Your task to perform on an android device: Play the latest video from the BBC Image 0: 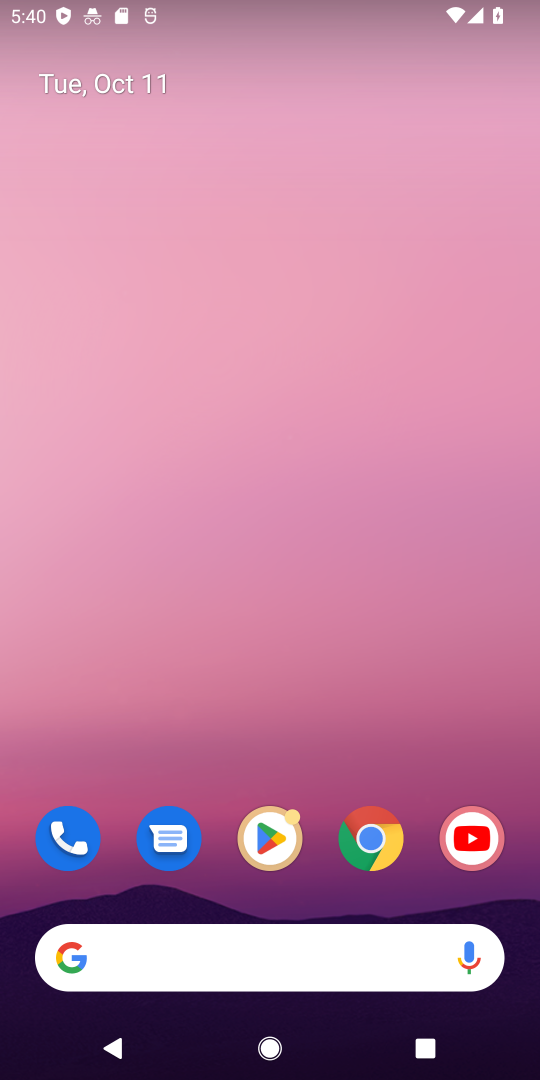
Step 0: click (379, 842)
Your task to perform on an android device: Play the latest video from the BBC Image 1: 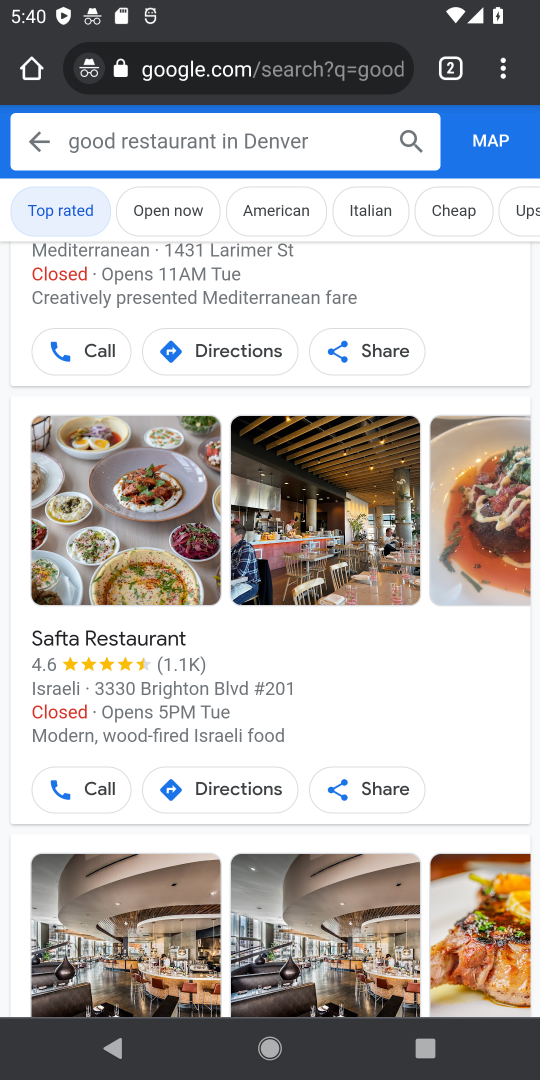
Step 1: click (200, 75)
Your task to perform on an android device: Play the latest video from the BBC Image 2: 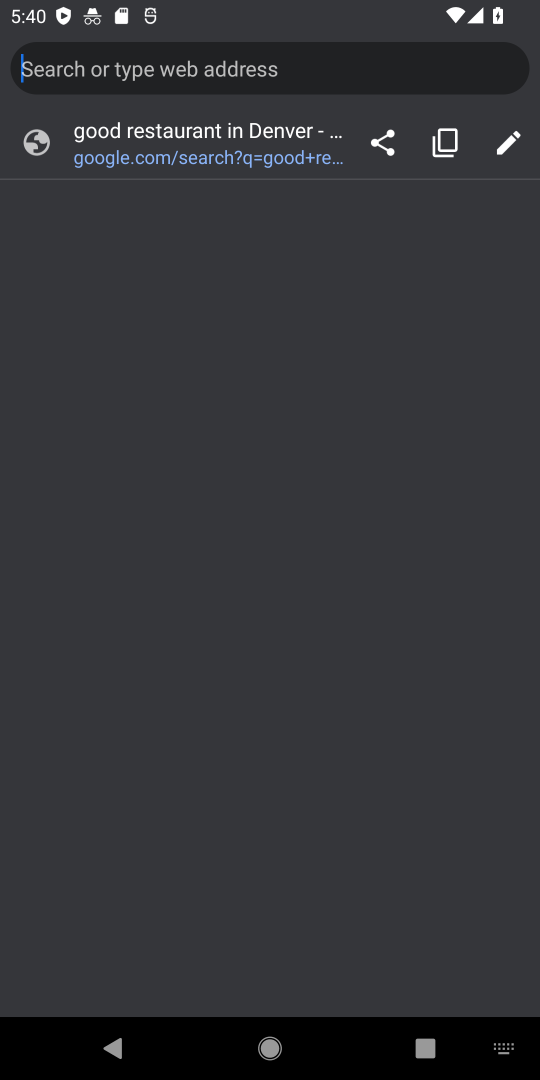
Step 2: type "latest video from the BBC"
Your task to perform on an android device: Play the latest video from the BBC Image 3: 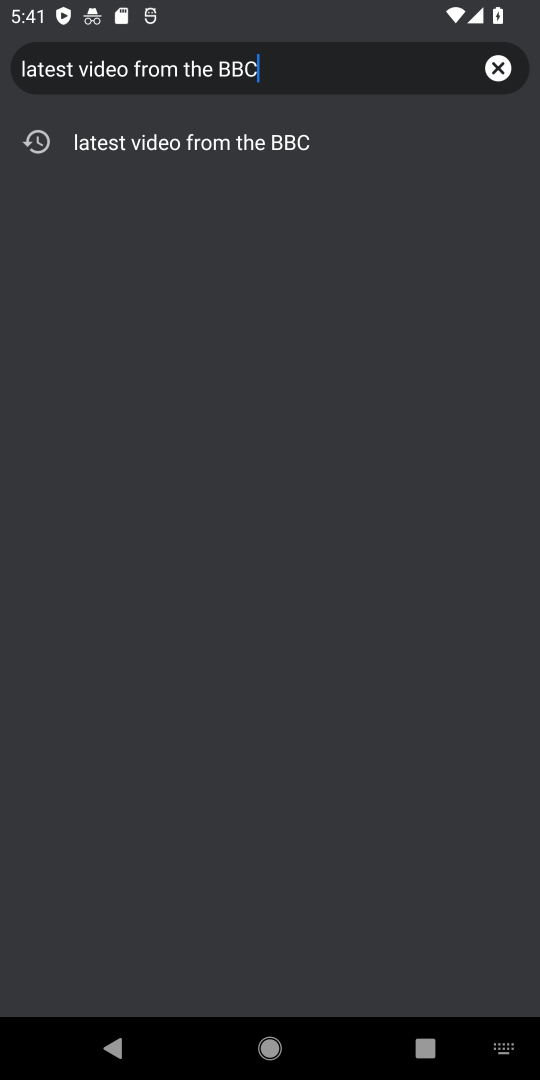
Step 3: click (300, 137)
Your task to perform on an android device: Play the latest video from the BBC Image 4: 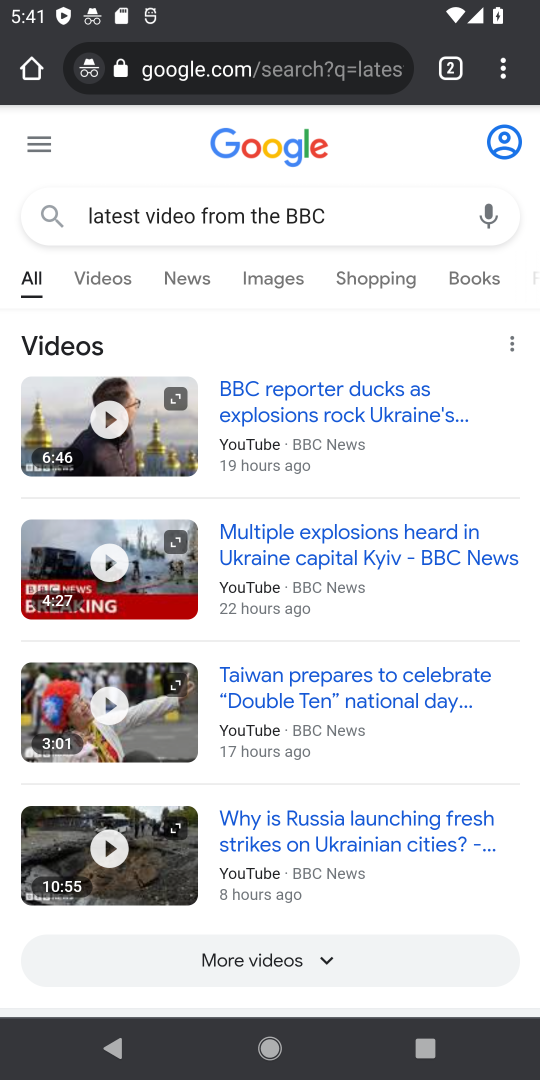
Step 4: drag from (365, 919) to (221, 293)
Your task to perform on an android device: Play the latest video from the BBC Image 5: 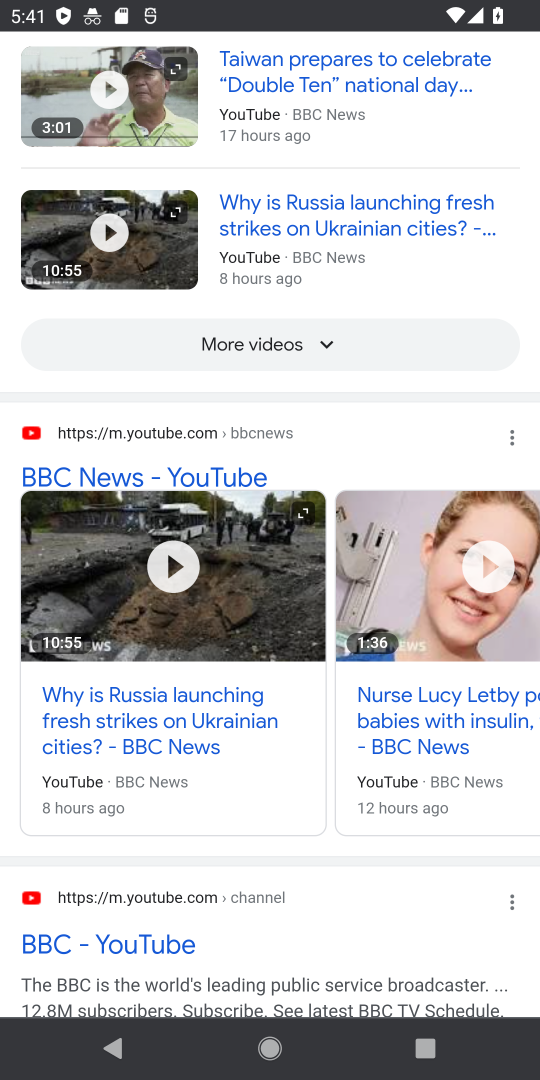
Step 5: click (105, 937)
Your task to perform on an android device: Play the latest video from the BBC Image 6: 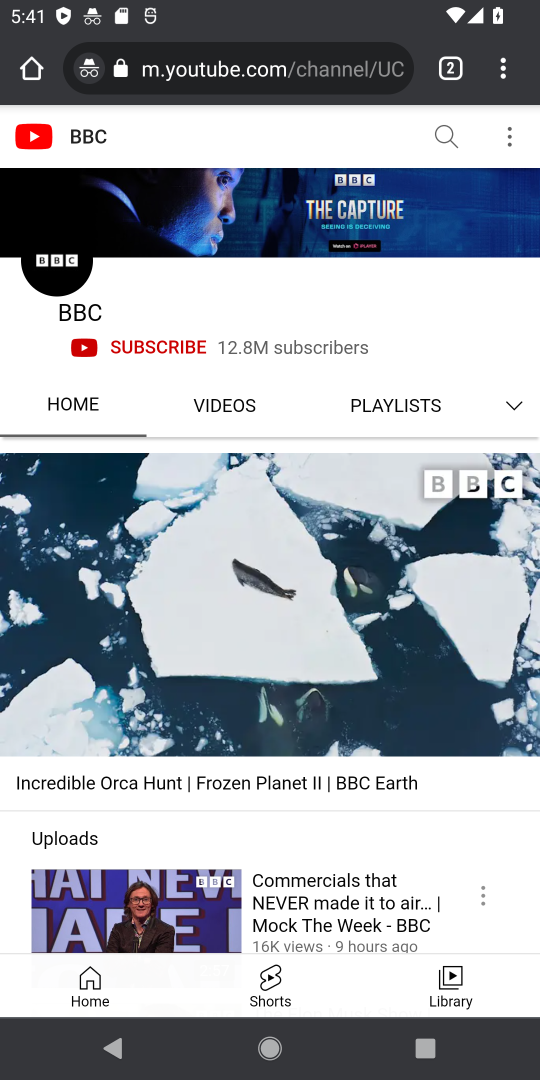
Step 6: click (217, 407)
Your task to perform on an android device: Play the latest video from the BBC Image 7: 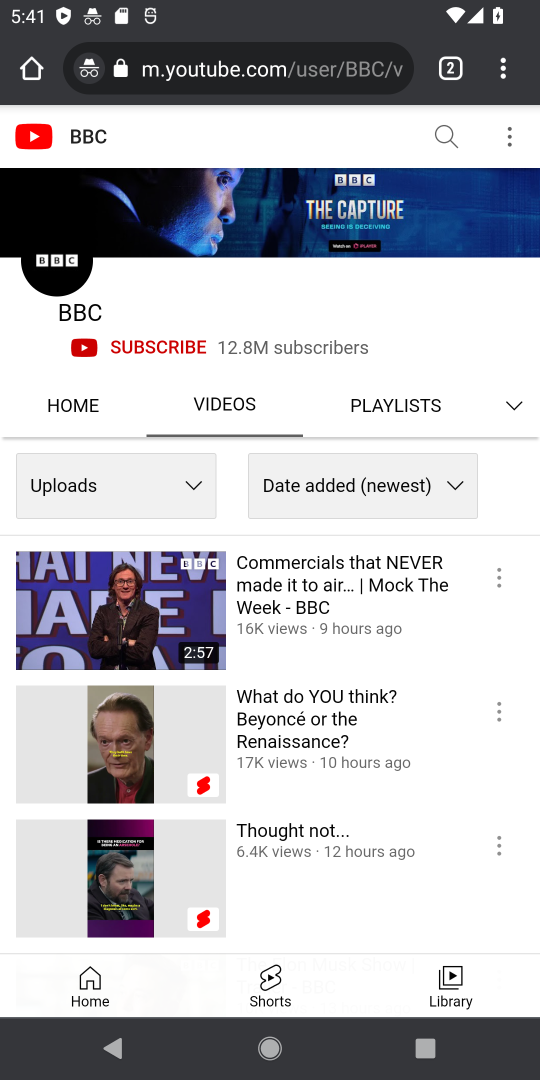
Step 7: click (318, 608)
Your task to perform on an android device: Play the latest video from the BBC Image 8: 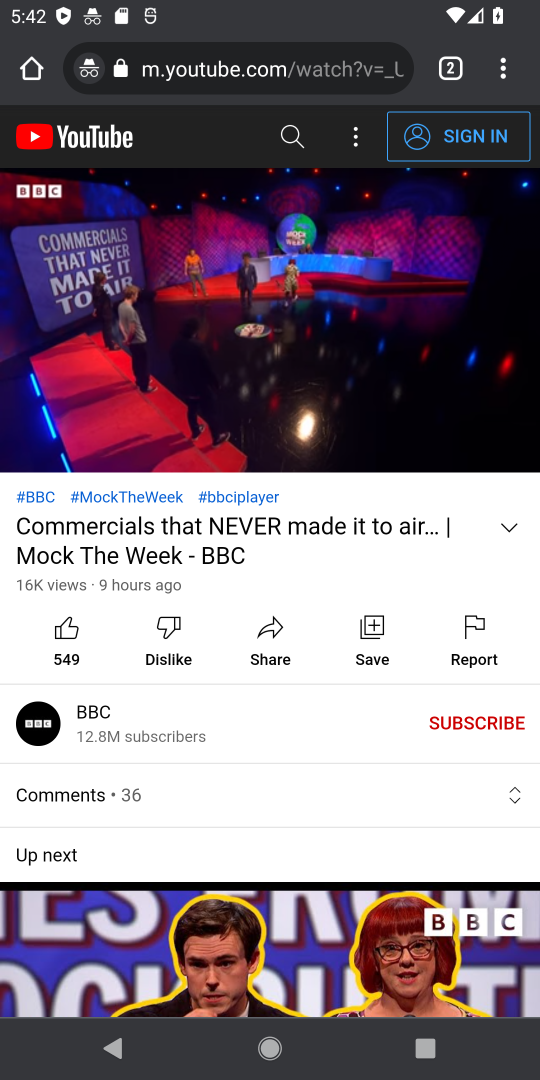
Step 8: task complete